Your task to perform on an android device: all mails in gmail Image 0: 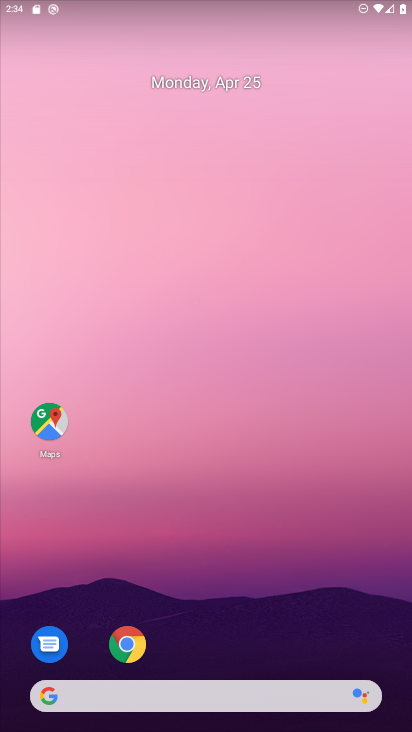
Step 0: task complete